Your task to perform on an android device: toggle notification dots Image 0: 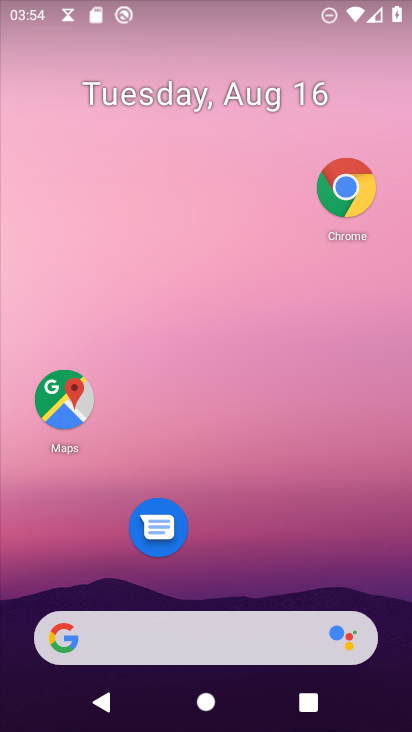
Step 0: press home button
Your task to perform on an android device: toggle notification dots Image 1: 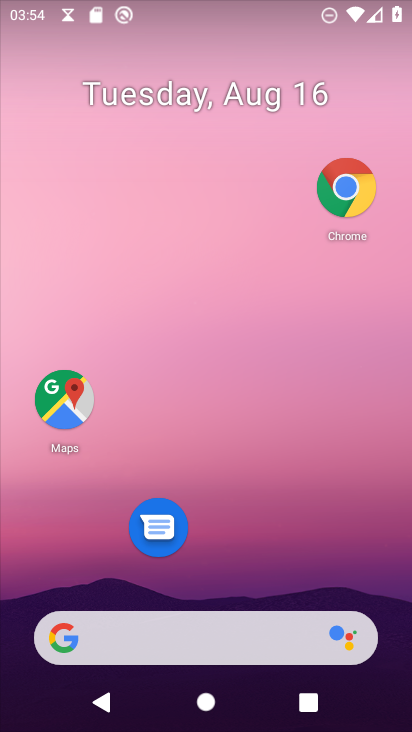
Step 1: drag from (228, 581) to (234, 7)
Your task to perform on an android device: toggle notification dots Image 2: 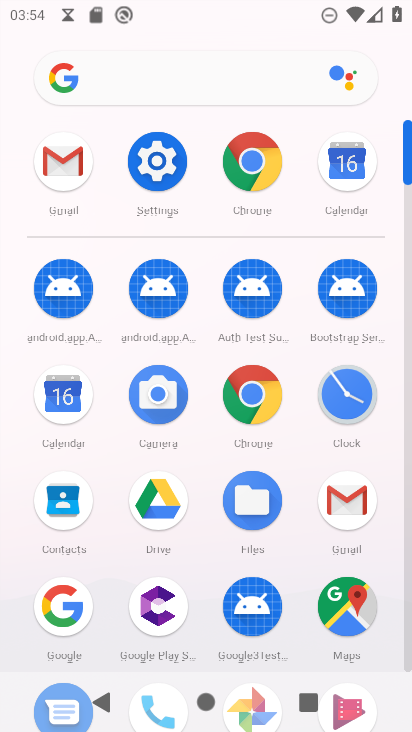
Step 2: click (154, 159)
Your task to perform on an android device: toggle notification dots Image 3: 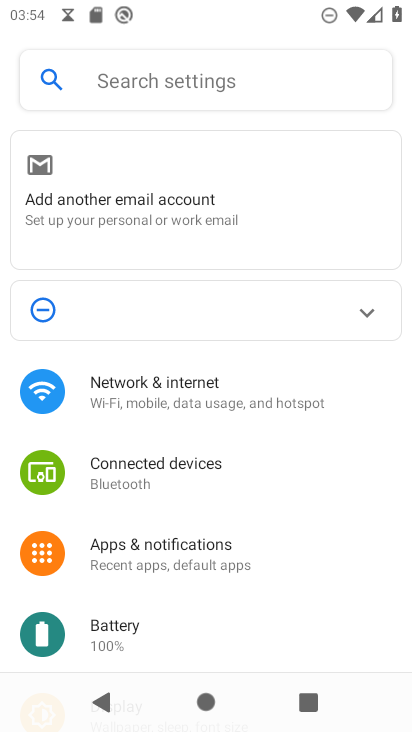
Step 3: click (231, 547)
Your task to perform on an android device: toggle notification dots Image 4: 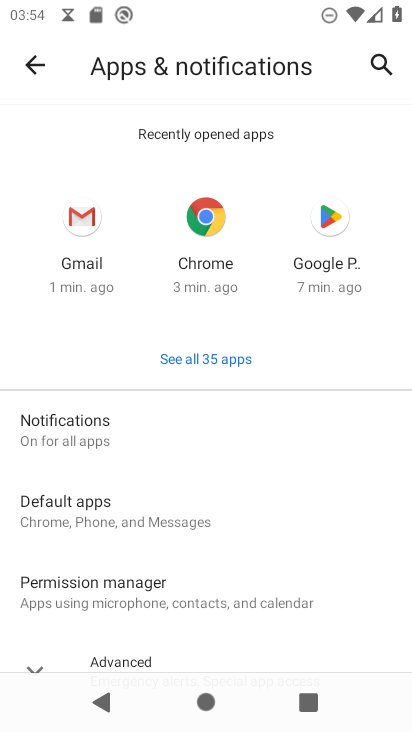
Step 4: click (51, 658)
Your task to perform on an android device: toggle notification dots Image 5: 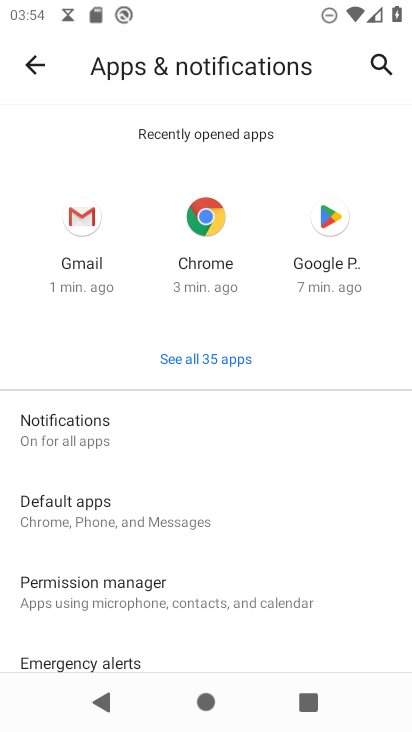
Step 5: drag from (160, 649) to (165, 110)
Your task to perform on an android device: toggle notification dots Image 6: 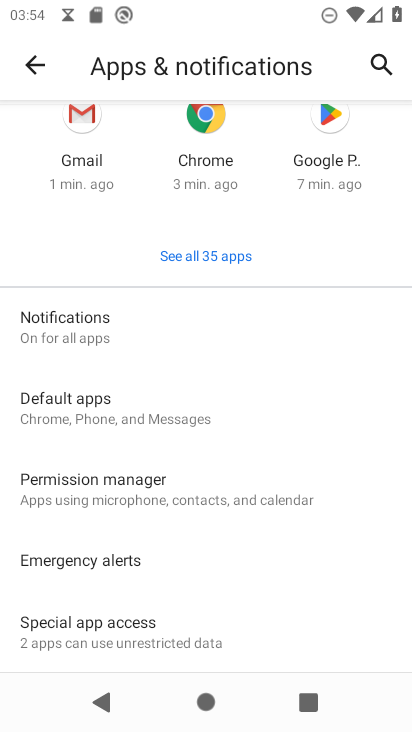
Step 6: click (78, 315)
Your task to perform on an android device: toggle notification dots Image 7: 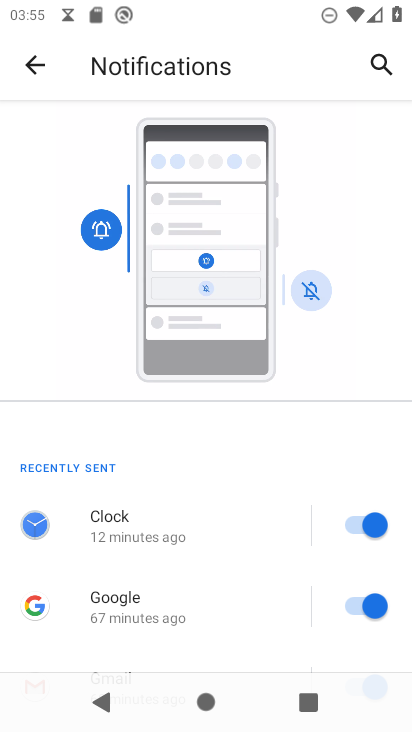
Step 7: drag from (218, 608) to (241, 69)
Your task to perform on an android device: toggle notification dots Image 8: 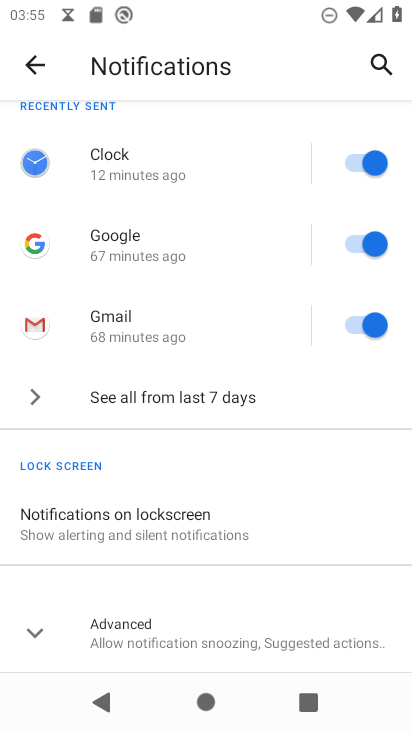
Step 8: drag from (213, 616) to (236, 150)
Your task to perform on an android device: toggle notification dots Image 9: 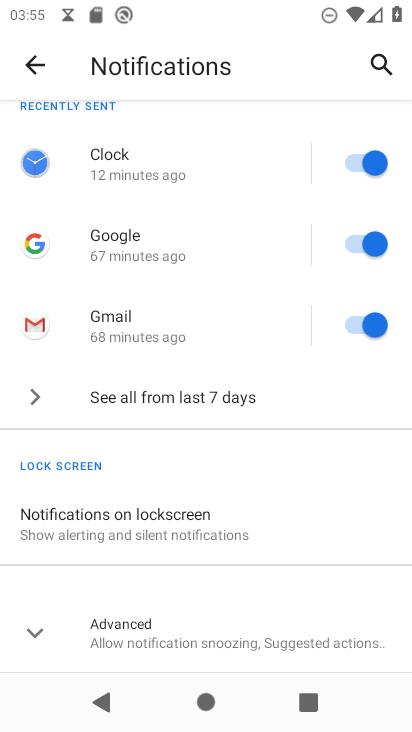
Step 9: click (29, 634)
Your task to perform on an android device: toggle notification dots Image 10: 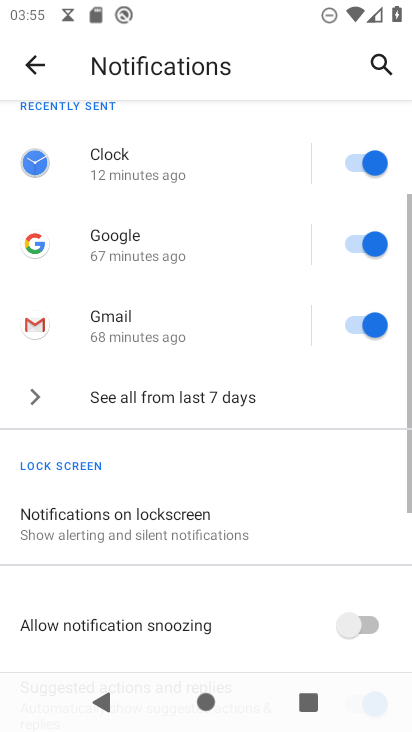
Step 10: drag from (187, 618) to (250, 134)
Your task to perform on an android device: toggle notification dots Image 11: 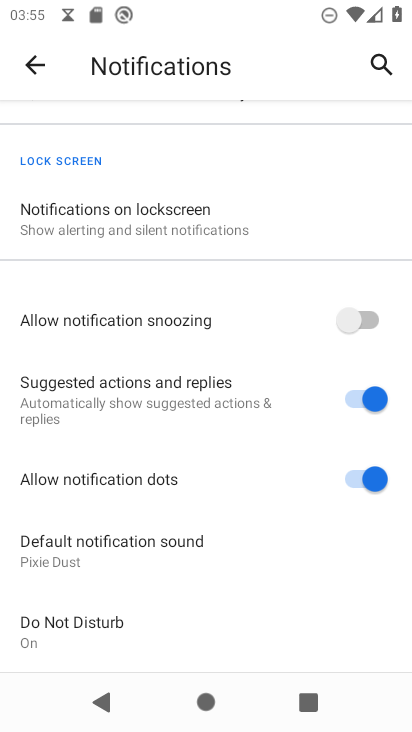
Step 11: click (348, 477)
Your task to perform on an android device: toggle notification dots Image 12: 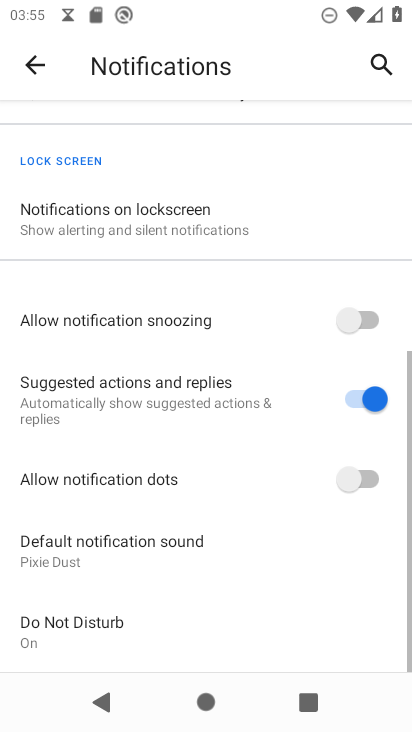
Step 12: task complete